Your task to perform on an android device: empty trash in the gmail app Image 0: 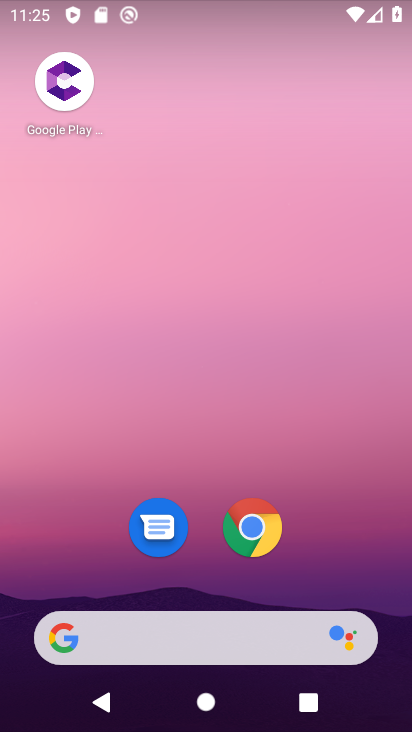
Step 0: drag from (207, 574) to (254, 18)
Your task to perform on an android device: empty trash in the gmail app Image 1: 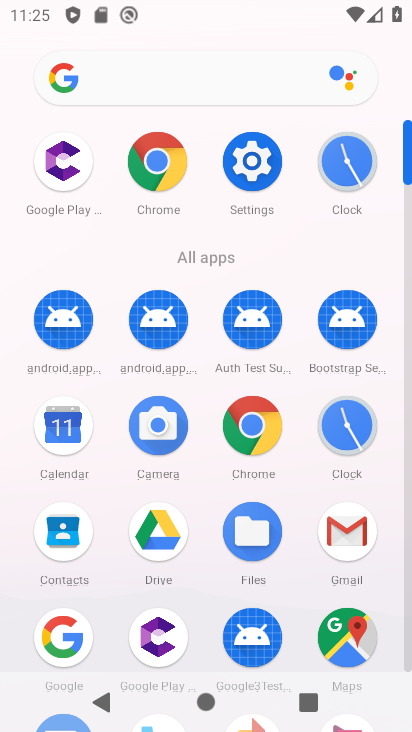
Step 1: click (341, 537)
Your task to perform on an android device: empty trash in the gmail app Image 2: 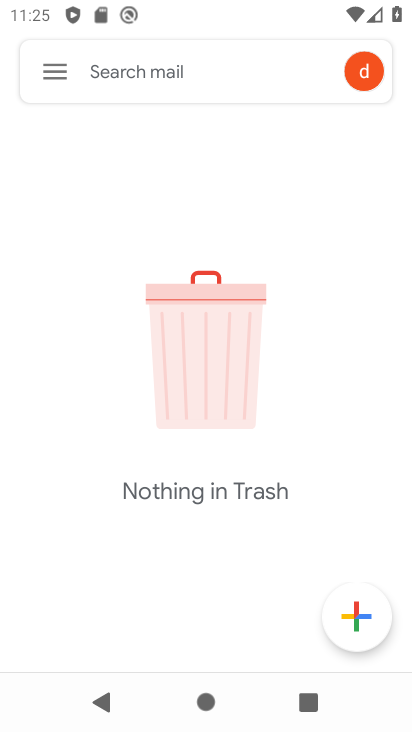
Step 2: task complete